Your task to perform on an android device: read, delete, or share a saved page in the chrome app Image 0: 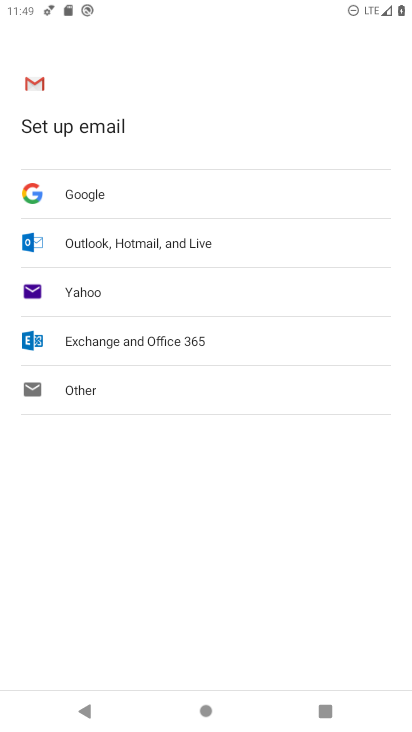
Step 0: press home button
Your task to perform on an android device: read, delete, or share a saved page in the chrome app Image 1: 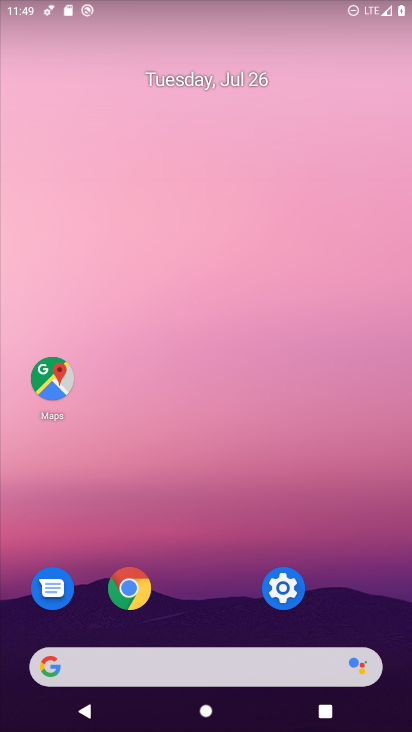
Step 1: click (131, 589)
Your task to perform on an android device: read, delete, or share a saved page in the chrome app Image 2: 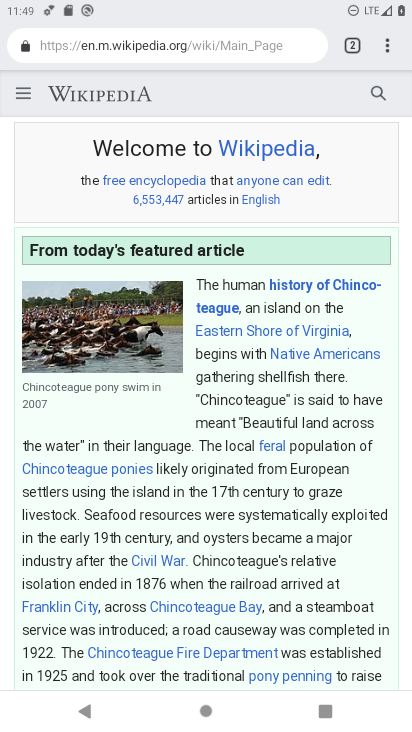
Step 2: click (391, 44)
Your task to perform on an android device: read, delete, or share a saved page in the chrome app Image 3: 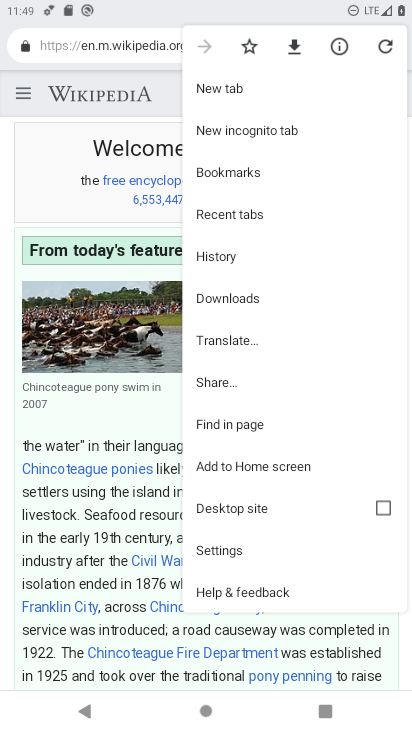
Step 3: click (241, 380)
Your task to perform on an android device: read, delete, or share a saved page in the chrome app Image 4: 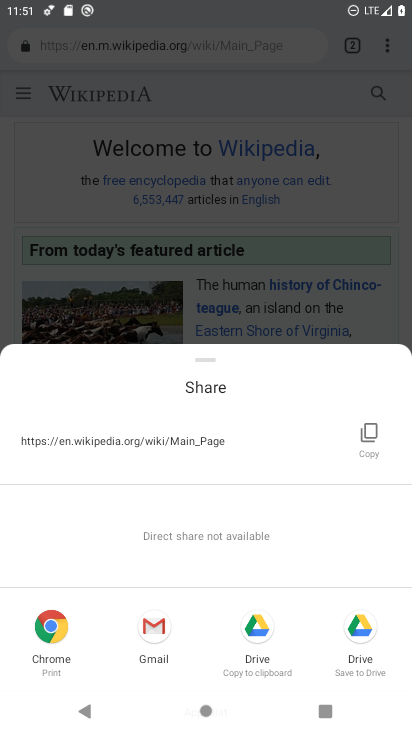
Step 4: task complete